Your task to perform on an android device: Search for flights from London to Paris Image 0: 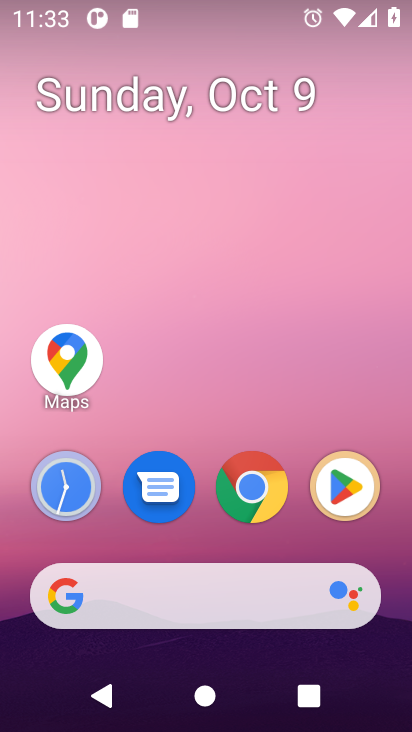
Step 0: drag from (186, 565) to (243, 135)
Your task to perform on an android device: Search for flights from London to Paris Image 1: 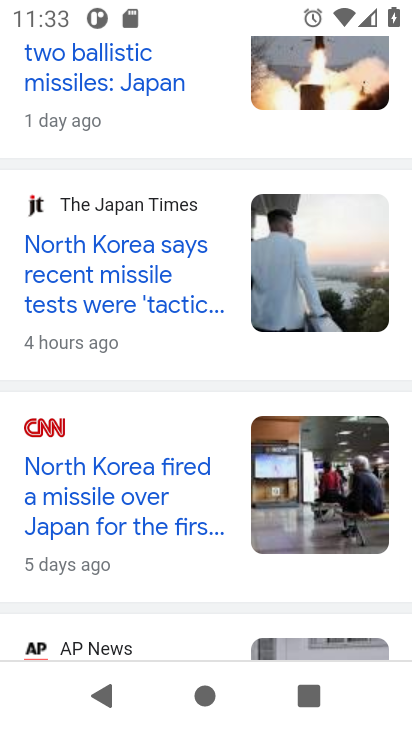
Step 1: drag from (211, 130) to (199, 512)
Your task to perform on an android device: Search for flights from London to Paris Image 2: 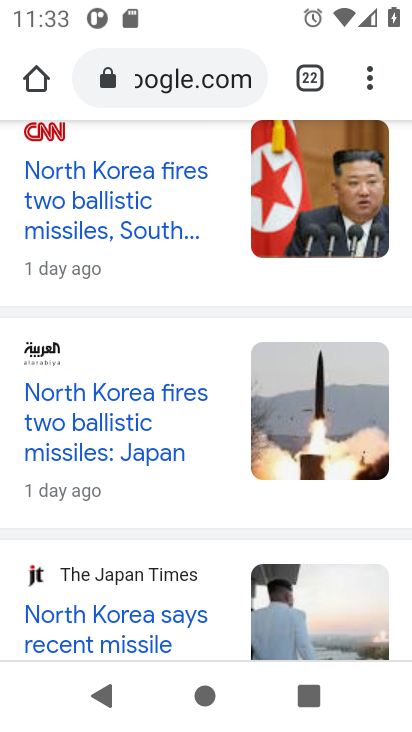
Step 2: drag from (370, 83) to (74, 166)
Your task to perform on an android device: Search for flights from London to Paris Image 3: 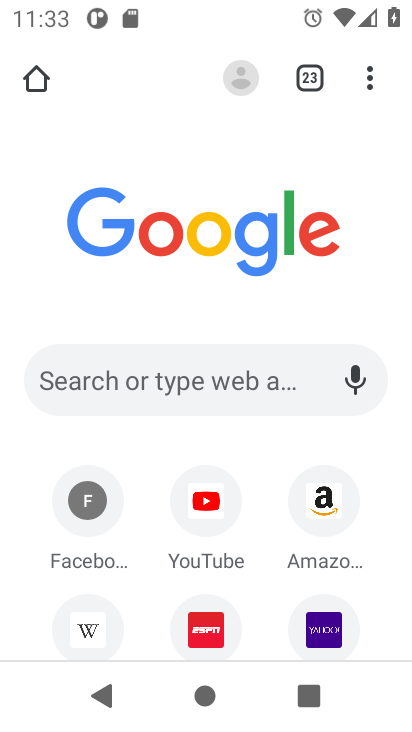
Step 3: click (130, 373)
Your task to perform on an android device: Search for flights from London to Paris Image 4: 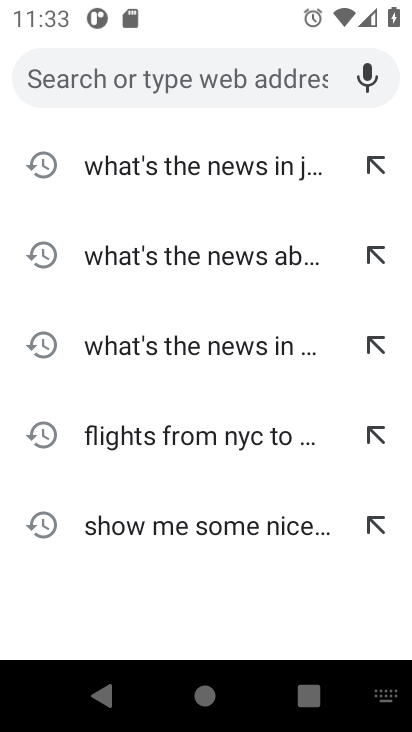
Step 4: type "lights from London to Paris"
Your task to perform on an android device: Search for flights from London to Paris Image 5: 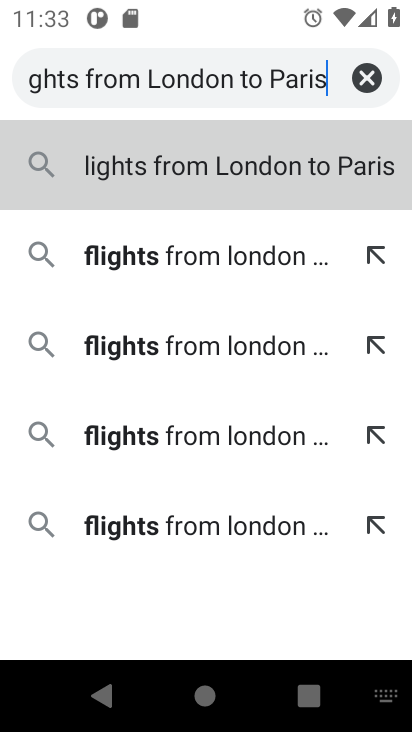
Step 5: type ""
Your task to perform on an android device: Search for flights from London to Paris Image 6: 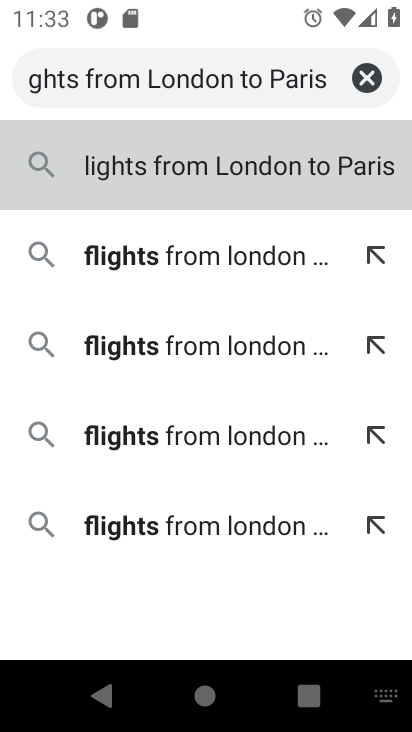
Step 6: click (243, 183)
Your task to perform on an android device: Search for flights from London to Paris Image 7: 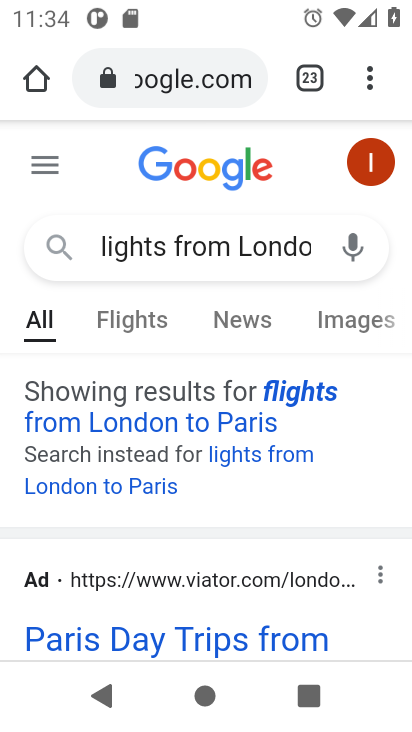
Step 7: click (291, 391)
Your task to perform on an android device: Search for flights from London to Paris Image 8: 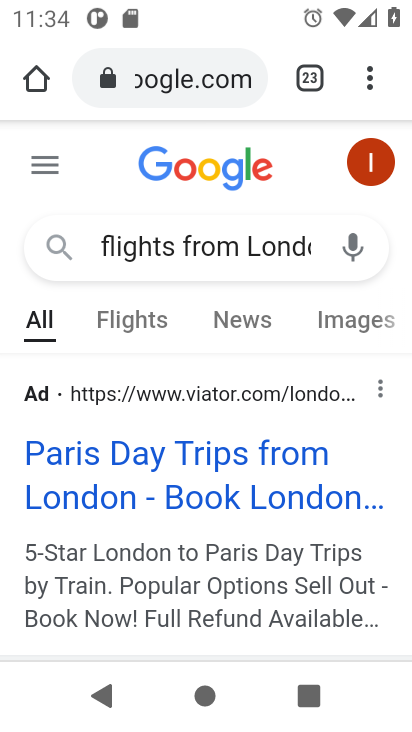
Step 8: click (133, 326)
Your task to perform on an android device: Search for flights from London to Paris Image 9: 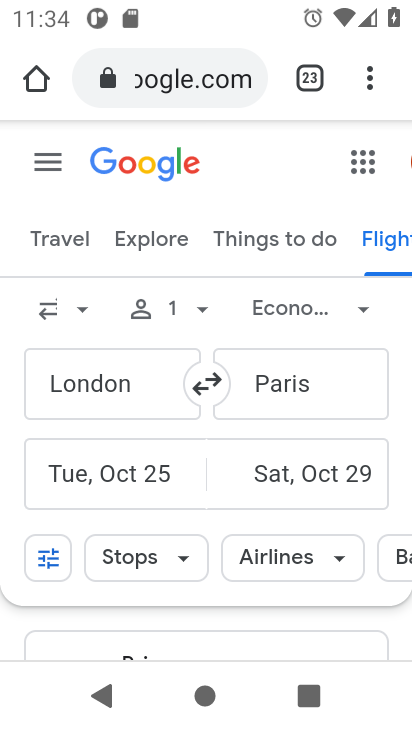
Step 9: task complete